Your task to perform on an android device: Open settings on Google Maps Image 0: 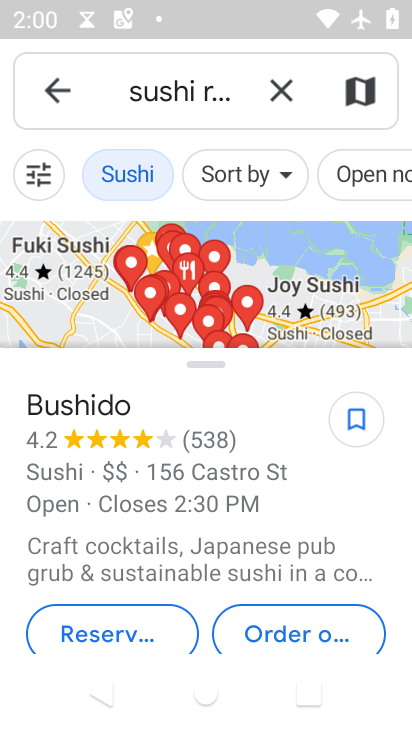
Step 0: press home button
Your task to perform on an android device: Open settings on Google Maps Image 1: 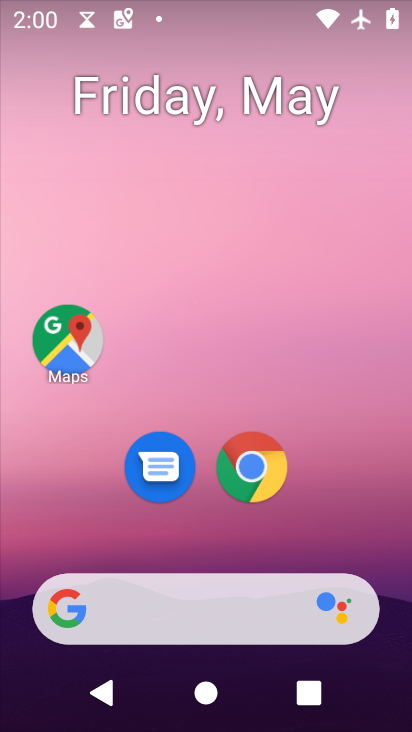
Step 1: click (66, 340)
Your task to perform on an android device: Open settings on Google Maps Image 2: 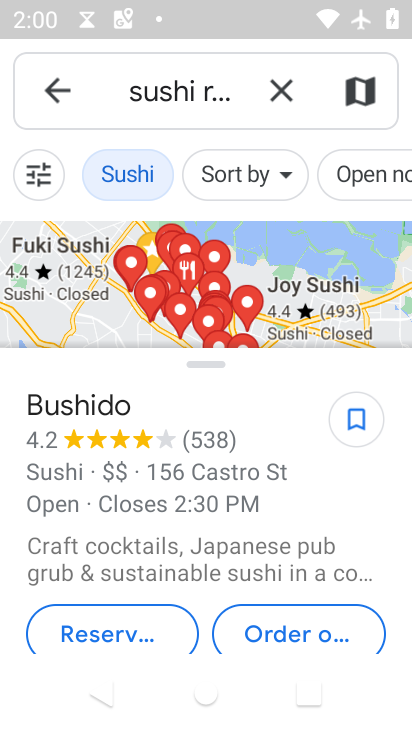
Step 2: press back button
Your task to perform on an android device: Open settings on Google Maps Image 3: 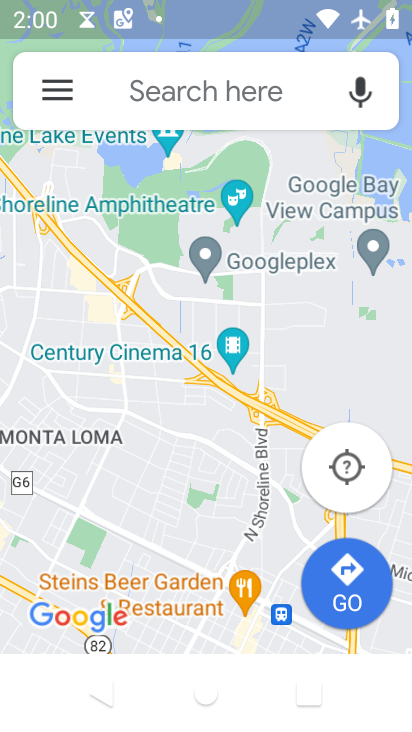
Step 3: click (59, 91)
Your task to perform on an android device: Open settings on Google Maps Image 4: 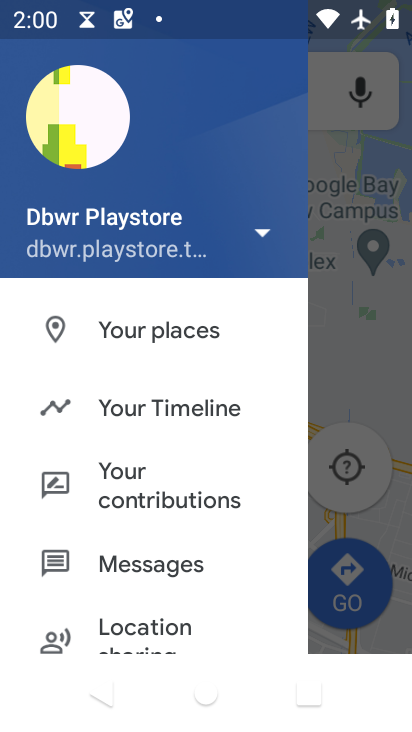
Step 4: drag from (123, 526) to (164, 381)
Your task to perform on an android device: Open settings on Google Maps Image 5: 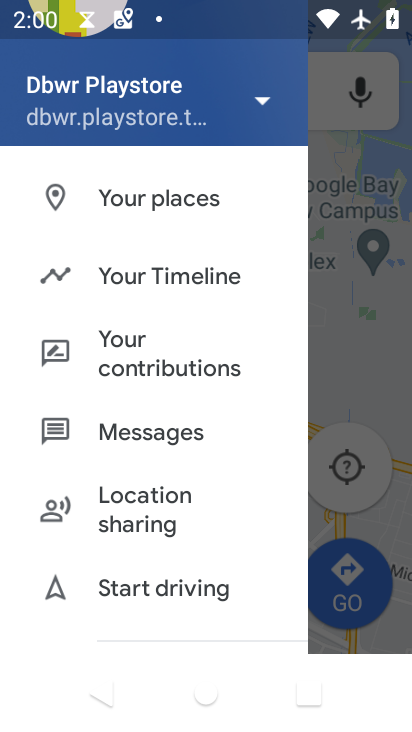
Step 5: drag from (125, 559) to (177, 413)
Your task to perform on an android device: Open settings on Google Maps Image 6: 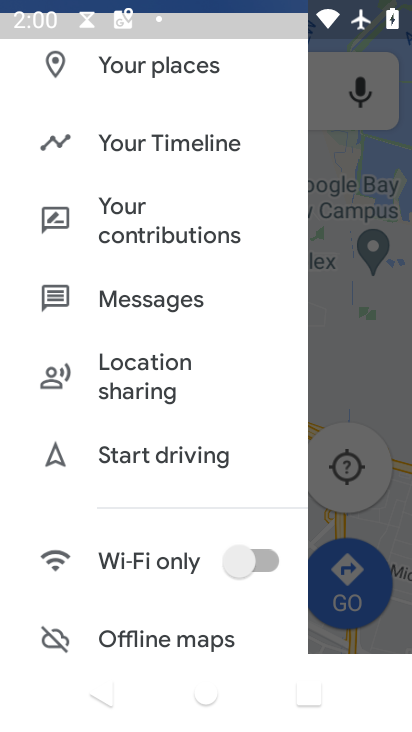
Step 6: drag from (112, 524) to (192, 379)
Your task to perform on an android device: Open settings on Google Maps Image 7: 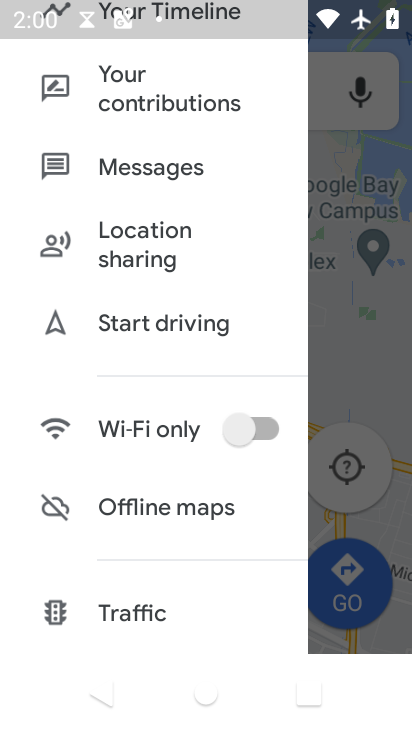
Step 7: drag from (116, 534) to (170, 360)
Your task to perform on an android device: Open settings on Google Maps Image 8: 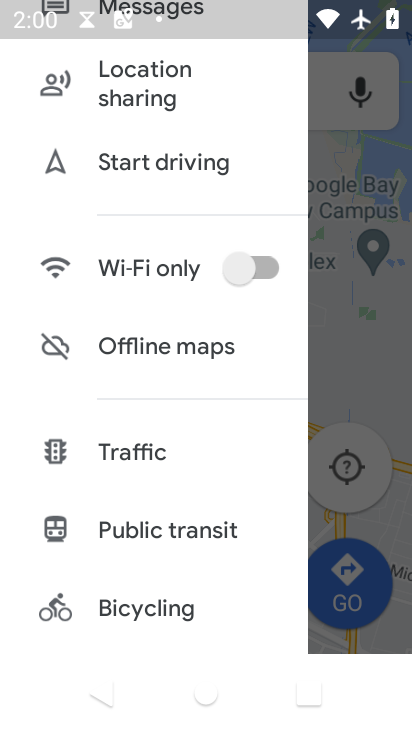
Step 8: drag from (108, 491) to (180, 300)
Your task to perform on an android device: Open settings on Google Maps Image 9: 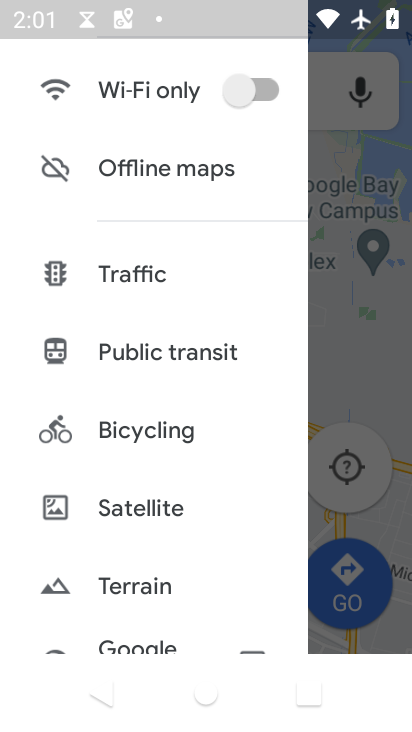
Step 9: drag from (108, 543) to (204, 372)
Your task to perform on an android device: Open settings on Google Maps Image 10: 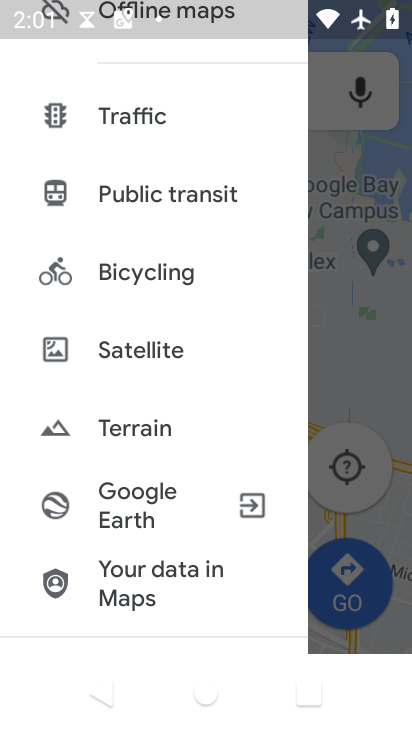
Step 10: drag from (120, 543) to (213, 385)
Your task to perform on an android device: Open settings on Google Maps Image 11: 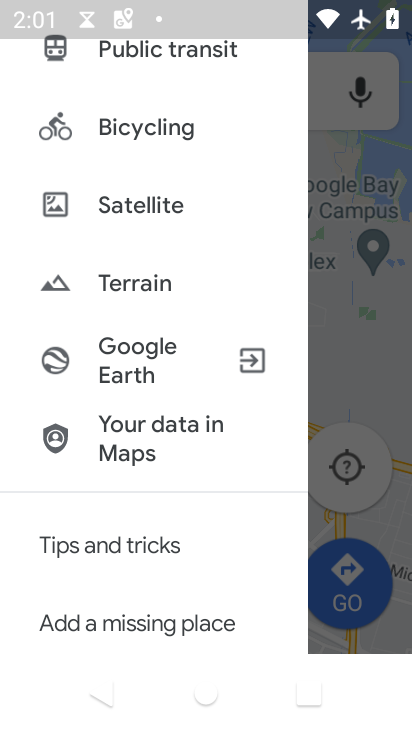
Step 11: drag from (112, 594) to (214, 410)
Your task to perform on an android device: Open settings on Google Maps Image 12: 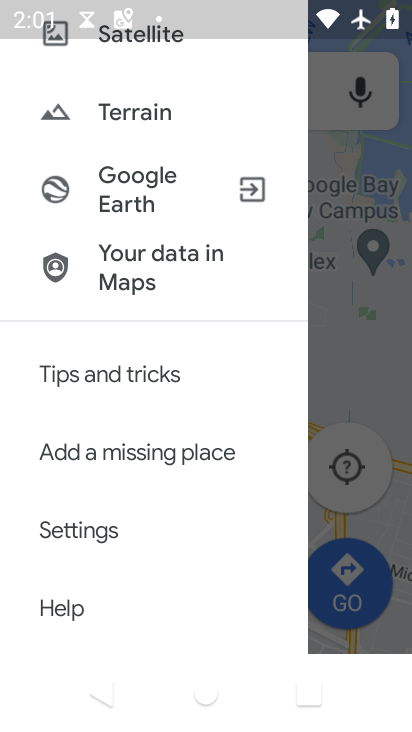
Step 12: click (94, 528)
Your task to perform on an android device: Open settings on Google Maps Image 13: 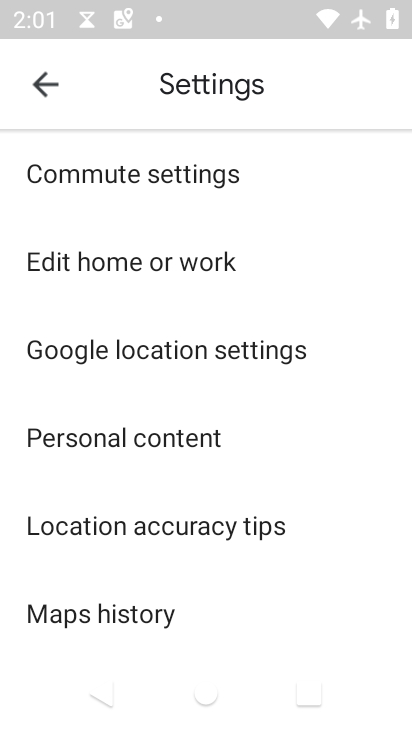
Step 13: task complete